Your task to perform on an android device: set the timer Image 0: 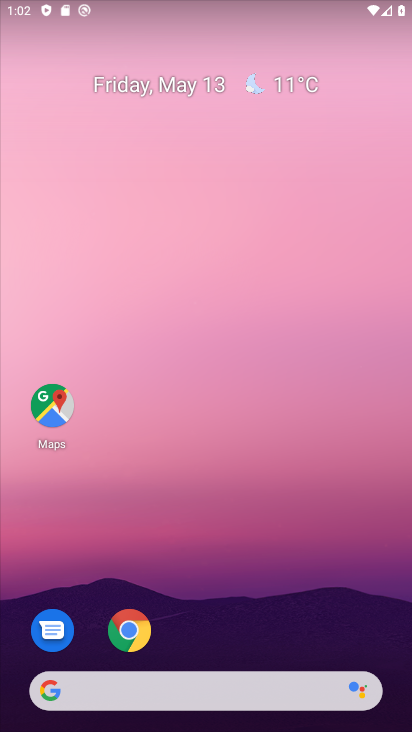
Step 0: drag from (234, 683) to (217, 231)
Your task to perform on an android device: set the timer Image 1: 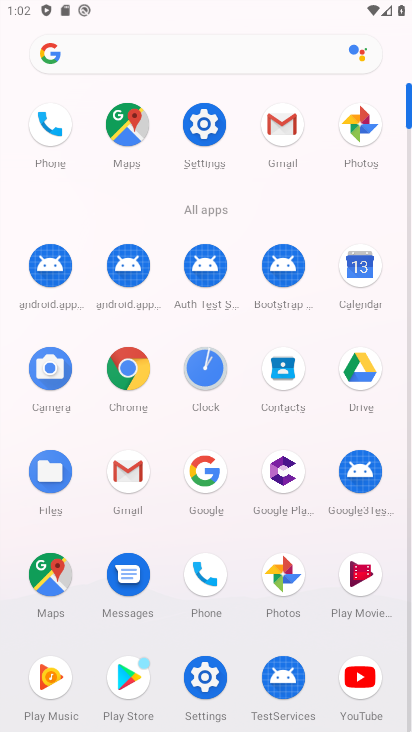
Step 1: click (208, 373)
Your task to perform on an android device: set the timer Image 2: 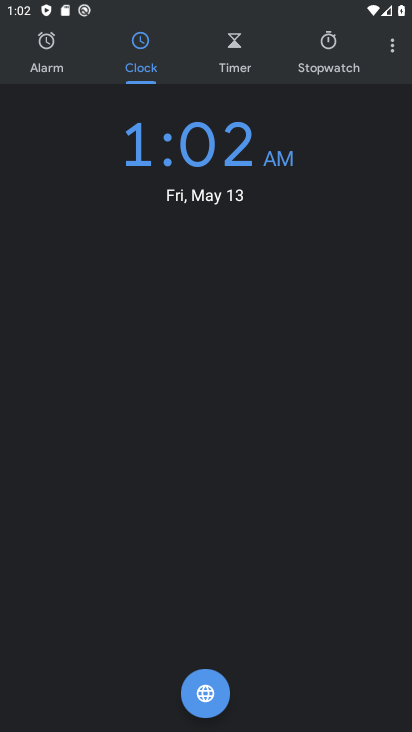
Step 2: click (244, 64)
Your task to perform on an android device: set the timer Image 3: 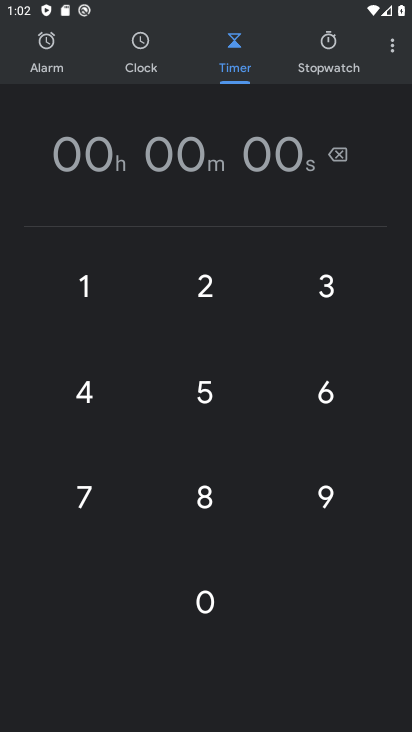
Step 3: click (99, 293)
Your task to perform on an android device: set the timer Image 4: 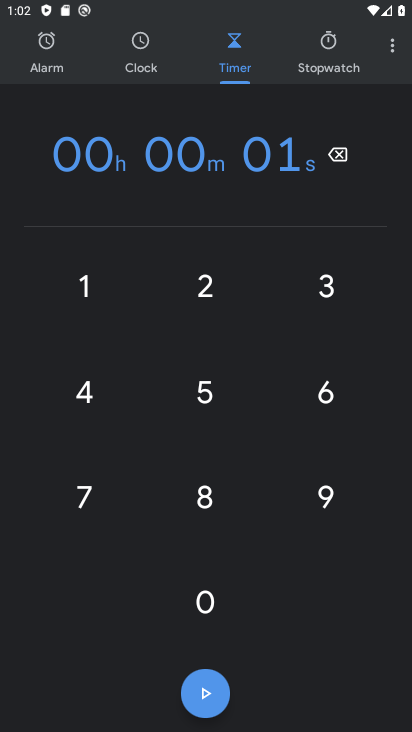
Step 4: click (192, 400)
Your task to perform on an android device: set the timer Image 5: 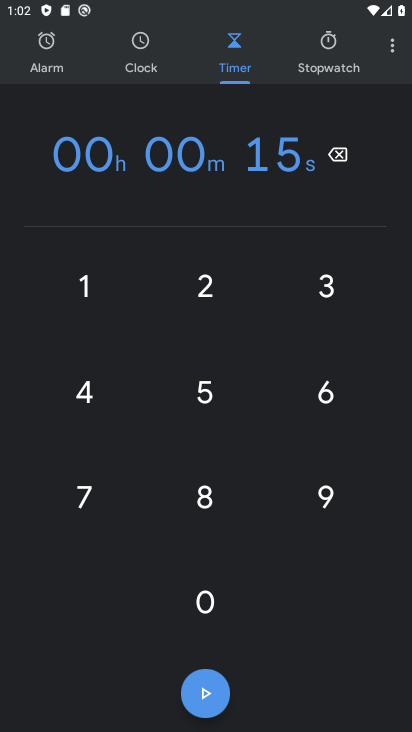
Step 5: click (330, 502)
Your task to perform on an android device: set the timer Image 6: 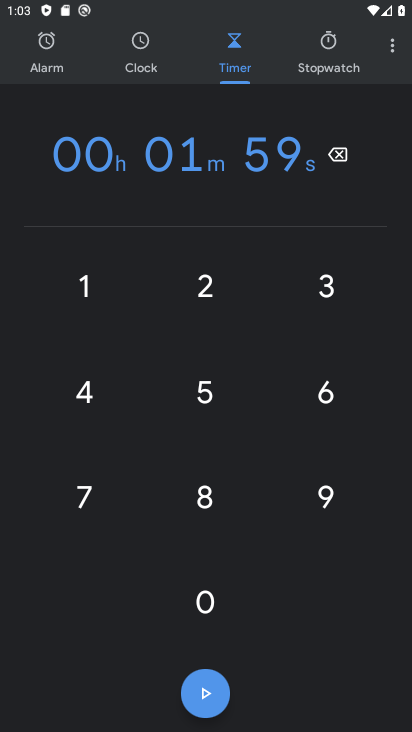
Step 6: click (196, 711)
Your task to perform on an android device: set the timer Image 7: 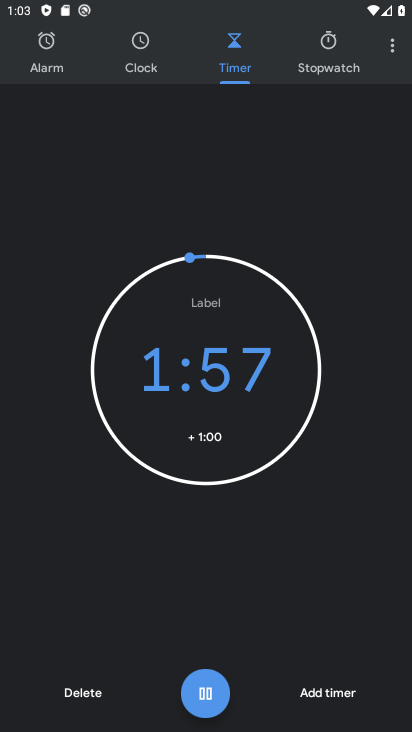
Step 7: task complete